Your task to perform on an android device: turn off data saver in the chrome app Image 0: 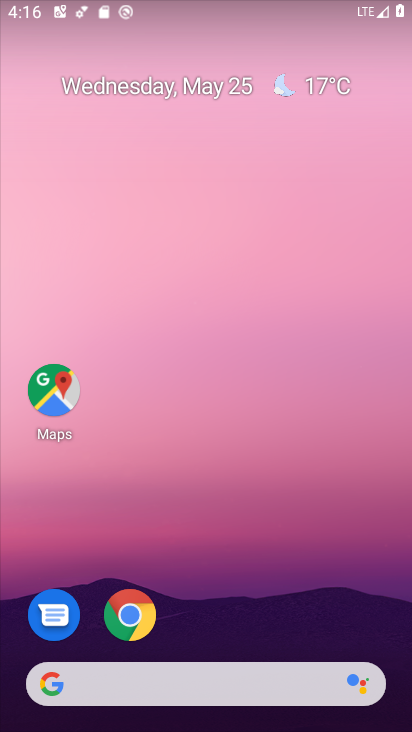
Step 0: click (144, 615)
Your task to perform on an android device: turn off data saver in the chrome app Image 1: 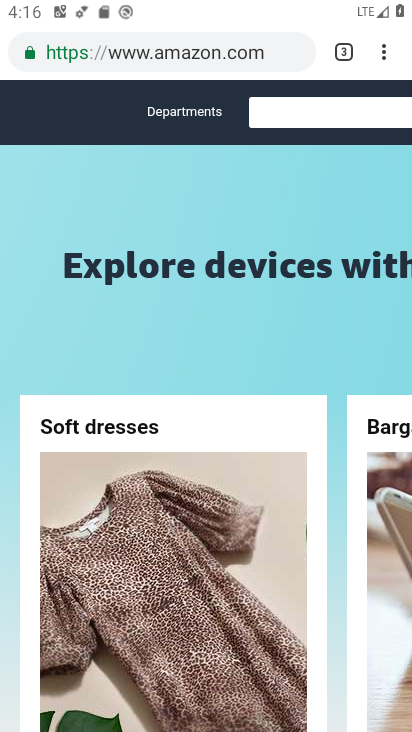
Step 1: click (383, 56)
Your task to perform on an android device: turn off data saver in the chrome app Image 2: 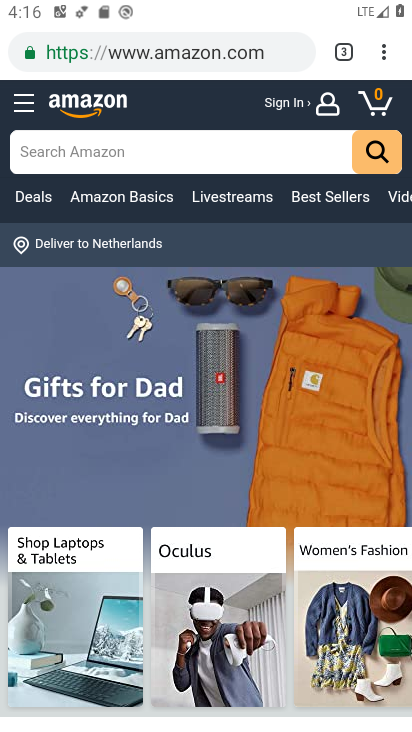
Step 2: click (385, 41)
Your task to perform on an android device: turn off data saver in the chrome app Image 3: 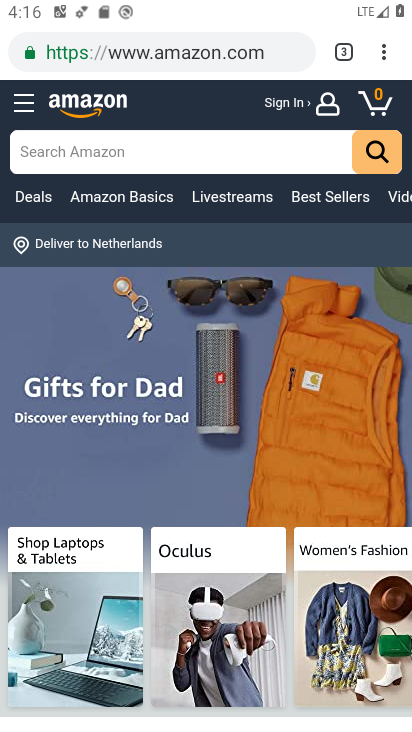
Step 3: click (384, 47)
Your task to perform on an android device: turn off data saver in the chrome app Image 4: 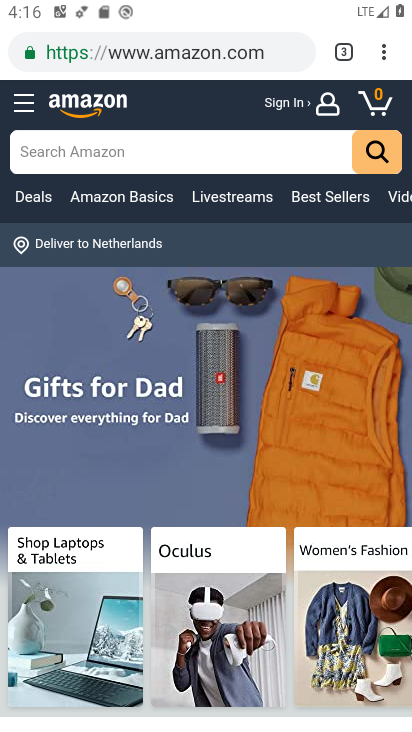
Step 4: click (379, 45)
Your task to perform on an android device: turn off data saver in the chrome app Image 5: 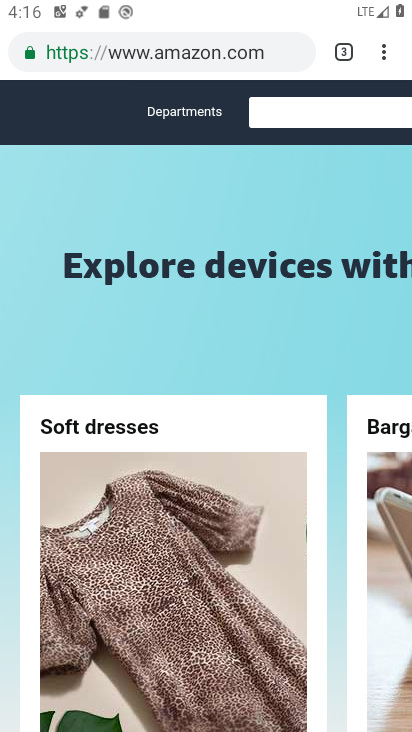
Step 5: click (377, 56)
Your task to perform on an android device: turn off data saver in the chrome app Image 6: 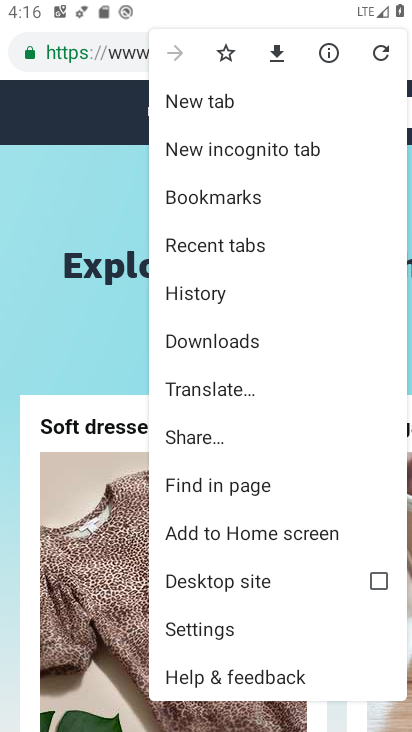
Step 6: click (227, 634)
Your task to perform on an android device: turn off data saver in the chrome app Image 7: 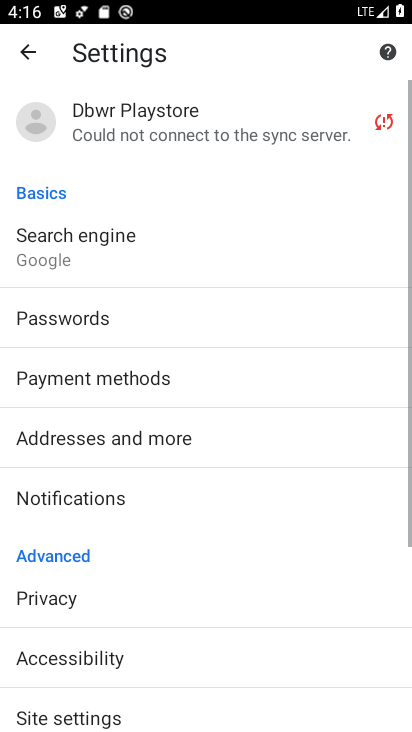
Step 7: drag from (232, 637) to (188, 201)
Your task to perform on an android device: turn off data saver in the chrome app Image 8: 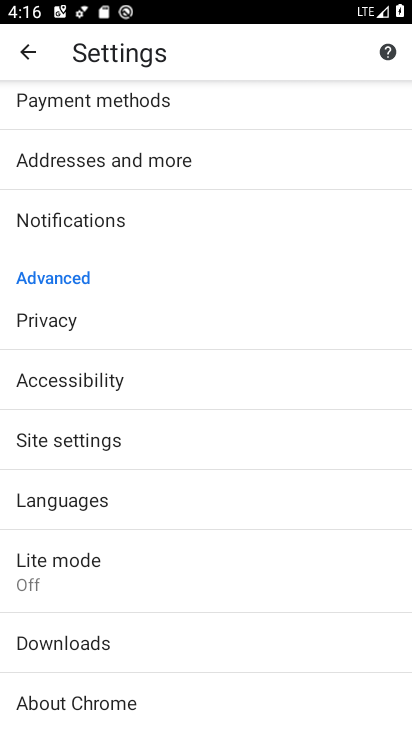
Step 8: click (110, 591)
Your task to perform on an android device: turn off data saver in the chrome app Image 9: 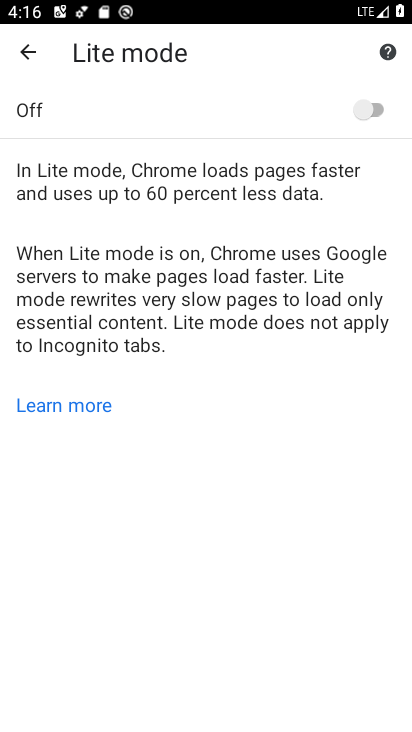
Step 9: task complete